Your task to perform on an android device: Go to ESPN.com Image 0: 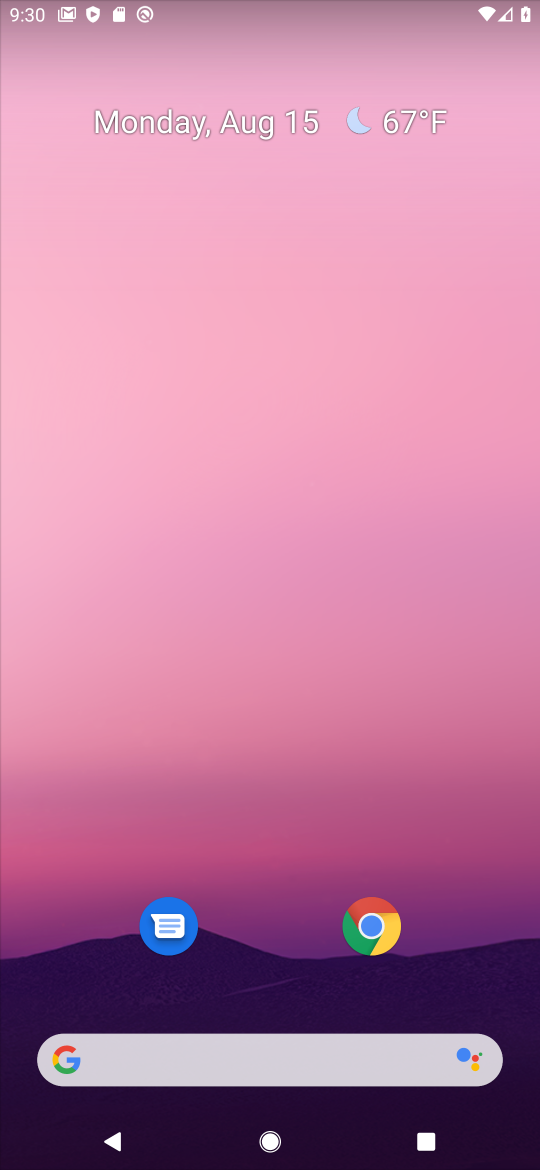
Step 0: press home button
Your task to perform on an android device: Go to ESPN.com Image 1: 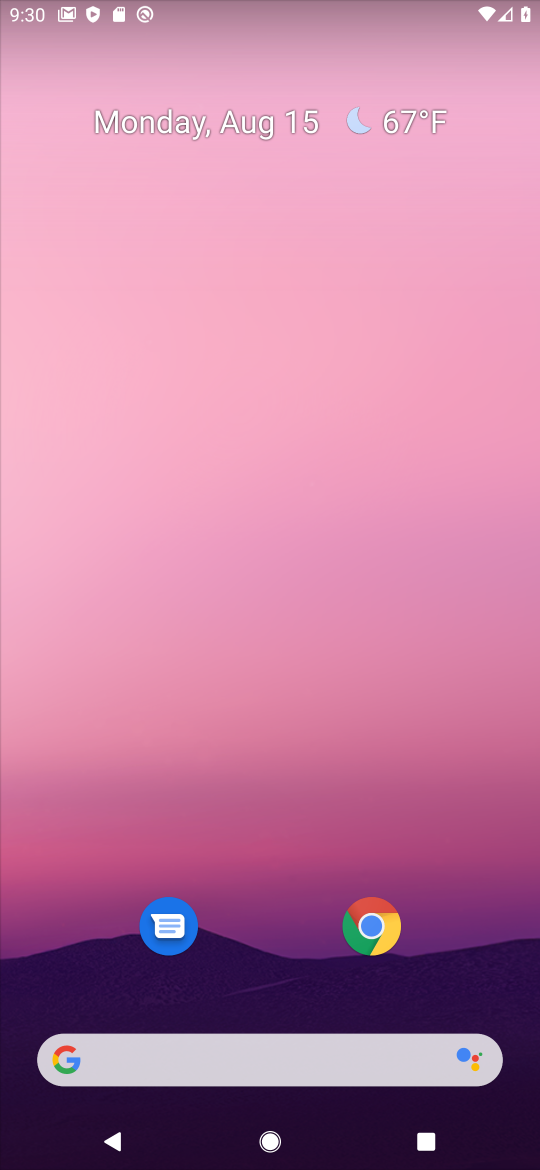
Step 1: press home button
Your task to perform on an android device: Go to ESPN.com Image 2: 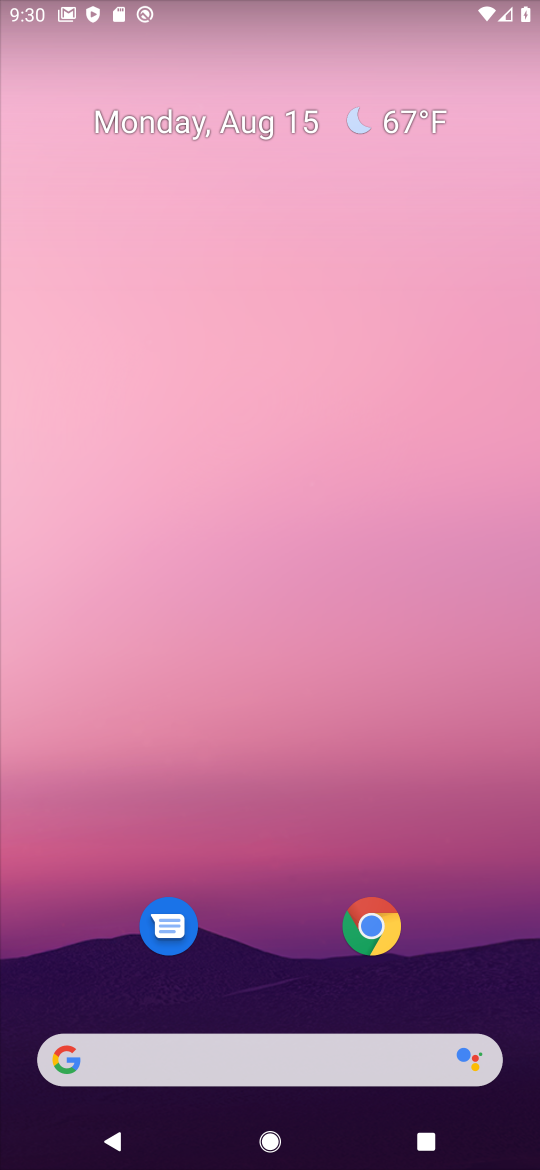
Step 2: press home button
Your task to perform on an android device: Go to ESPN.com Image 3: 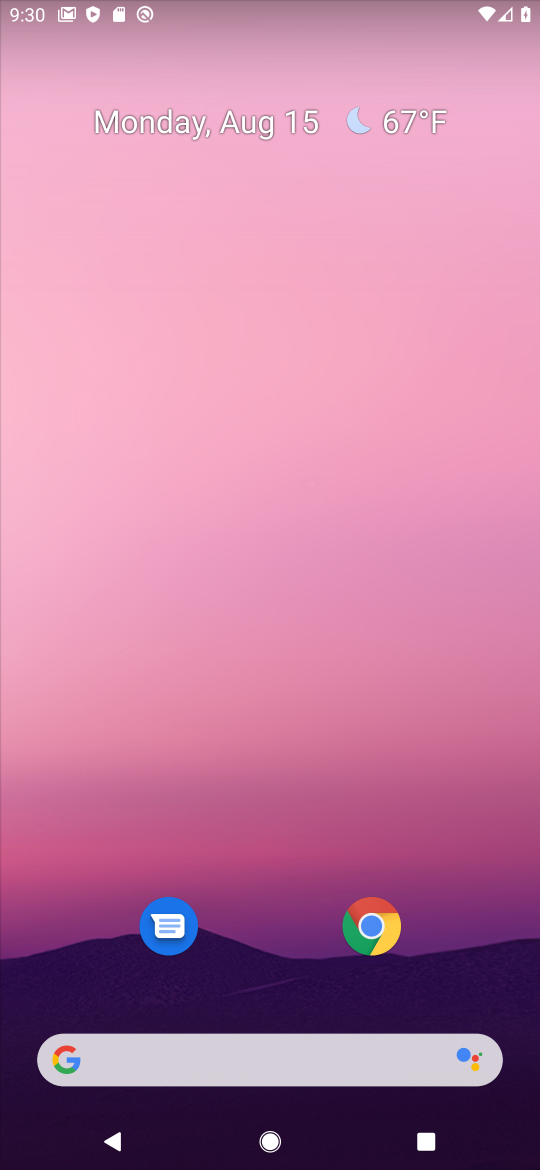
Step 3: click (369, 946)
Your task to perform on an android device: Go to ESPN.com Image 4: 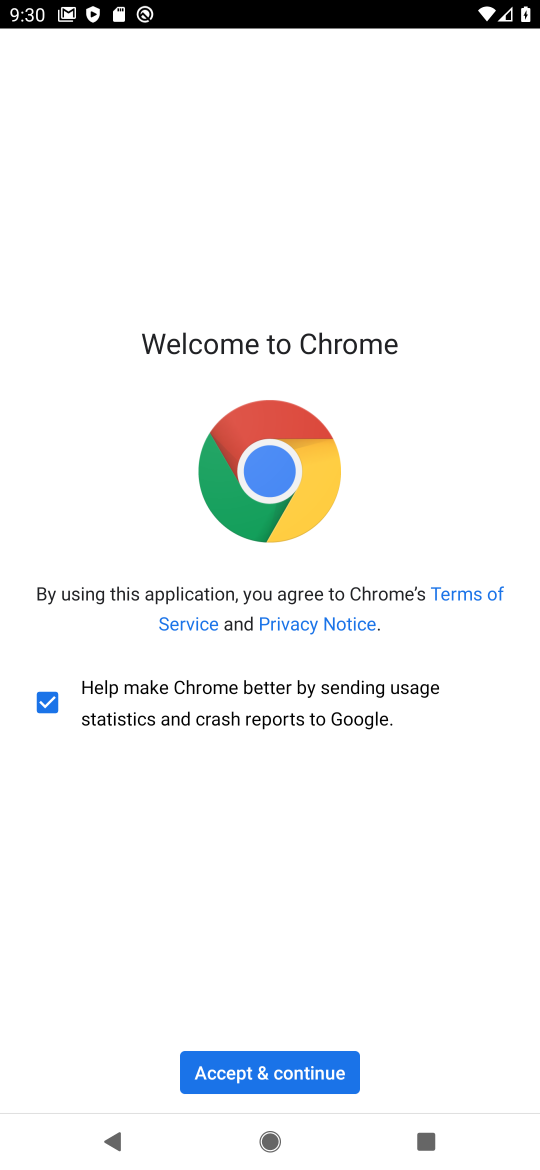
Step 4: click (332, 1088)
Your task to perform on an android device: Go to ESPN.com Image 5: 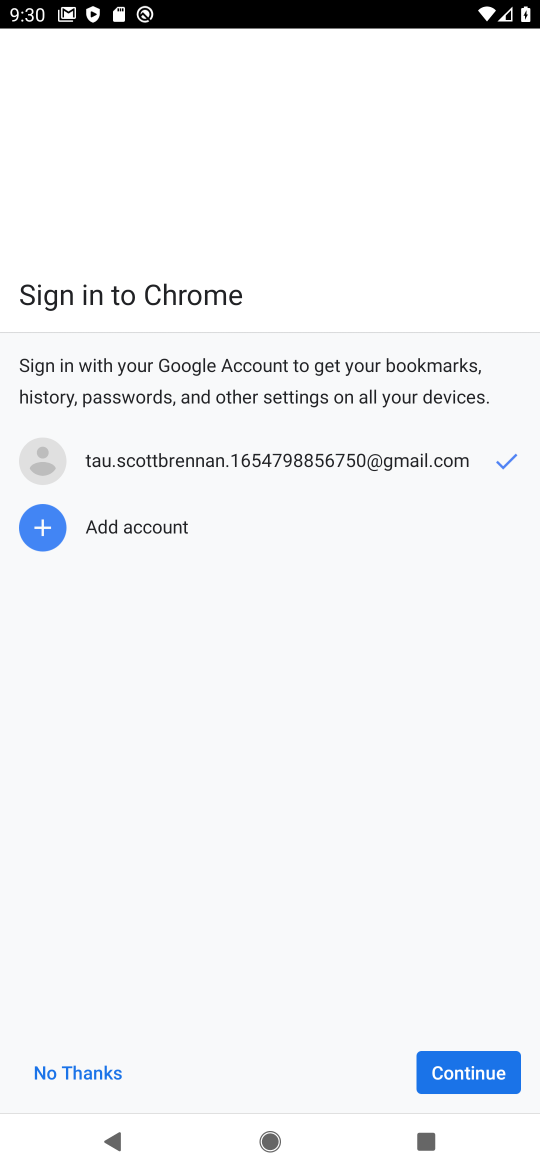
Step 5: click (490, 1065)
Your task to perform on an android device: Go to ESPN.com Image 6: 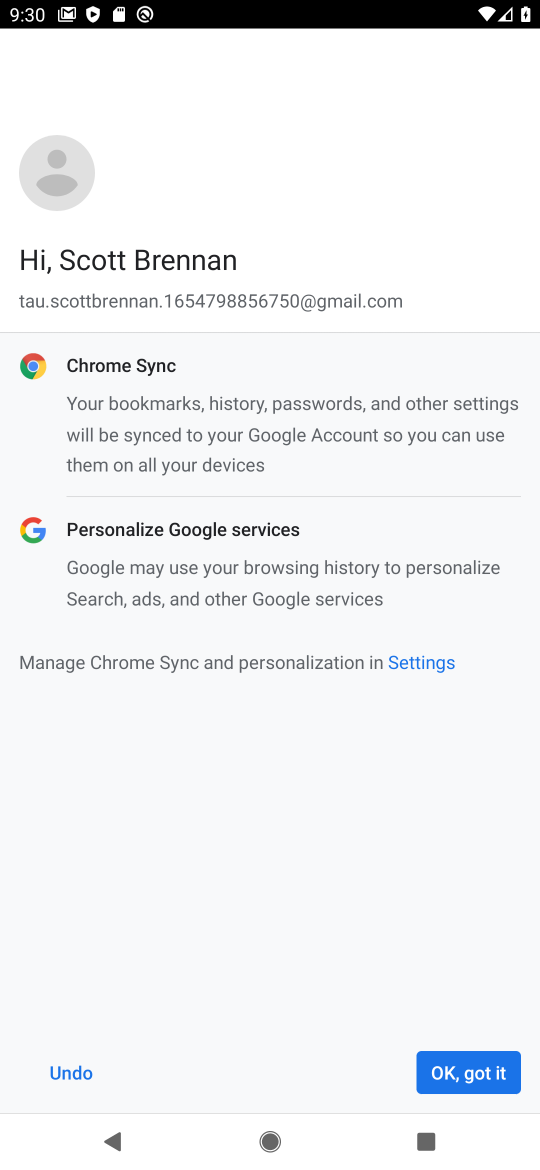
Step 6: click (457, 1084)
Your task to perform on an android device: Go to ESPN.com Image 7: 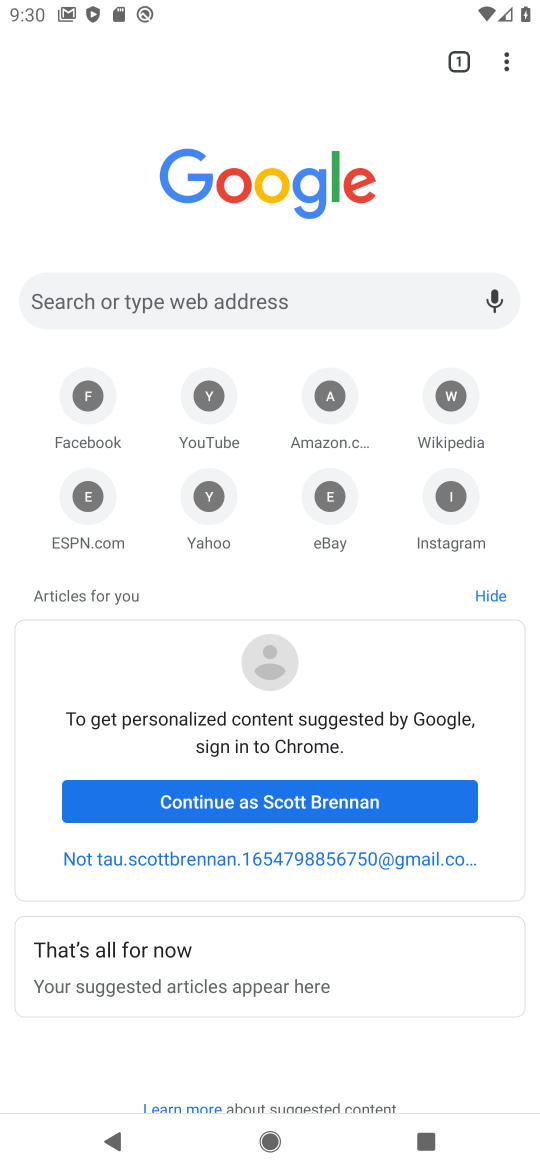
Step 7: click (139, 59)
Your task to perform on an android device: Go to ESPN.com Image 8: 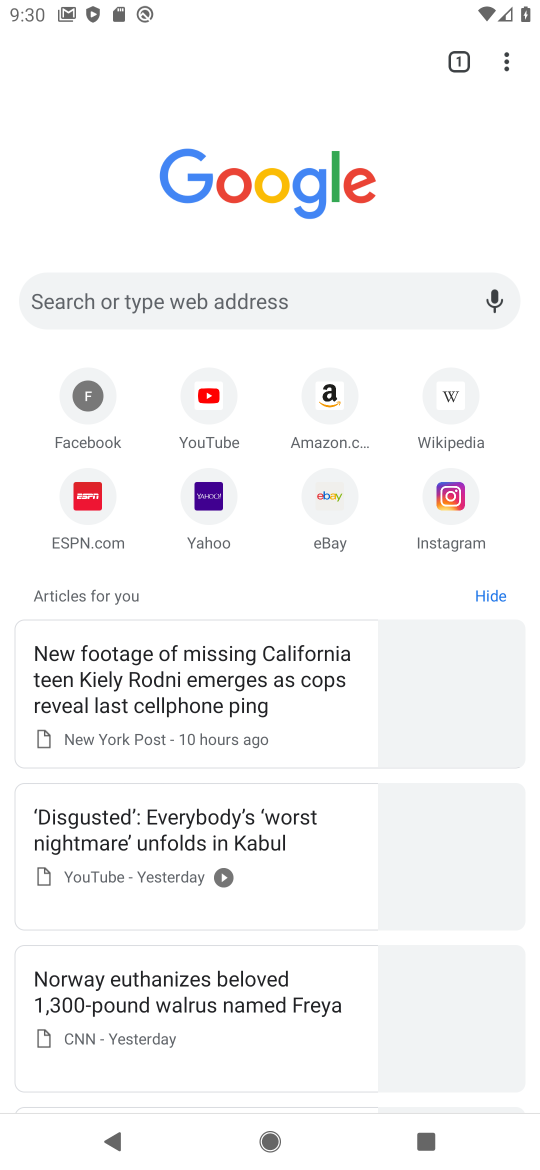
Step 8: click (243, 302)
Your task to perform on an android device: Go to ESPN.com Image 9: 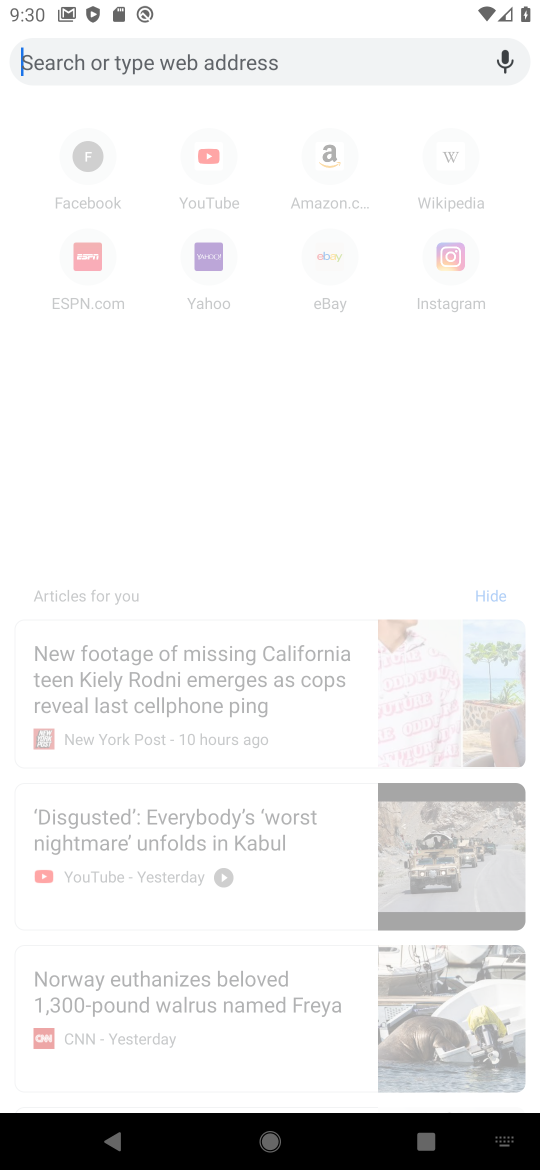
Step 9: type "ESPN.com"
Your task to perform on an android device: Go to ESPN.com Image 10: 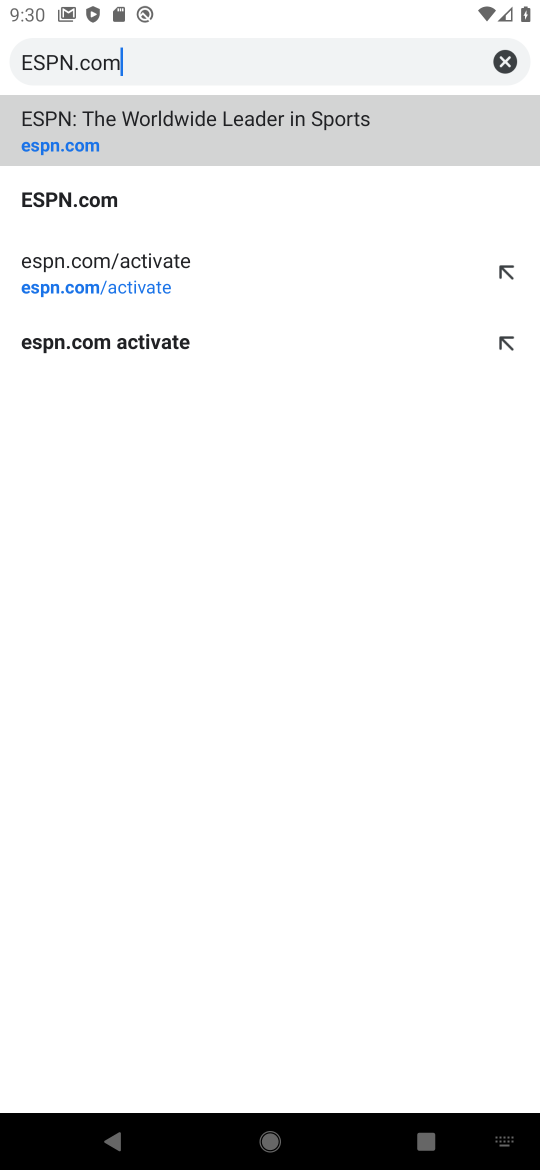
Step 10: click (364, 120)
Your task to perform on an android device: Go to ESPN.com Image 11: 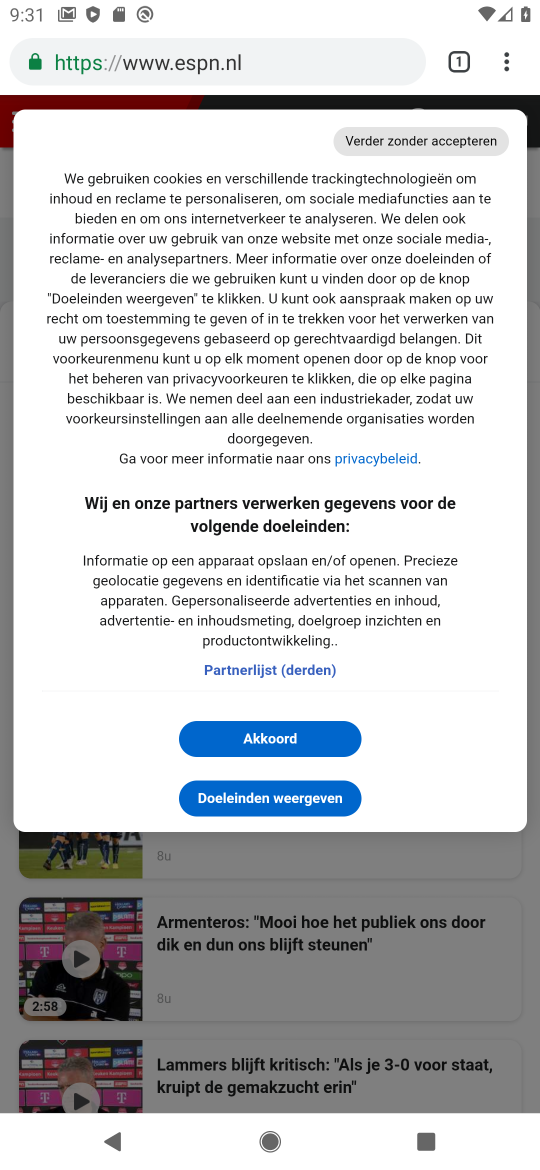
Step 11: task complete